Your task to perform on an android device: Go to location settings Image 0: 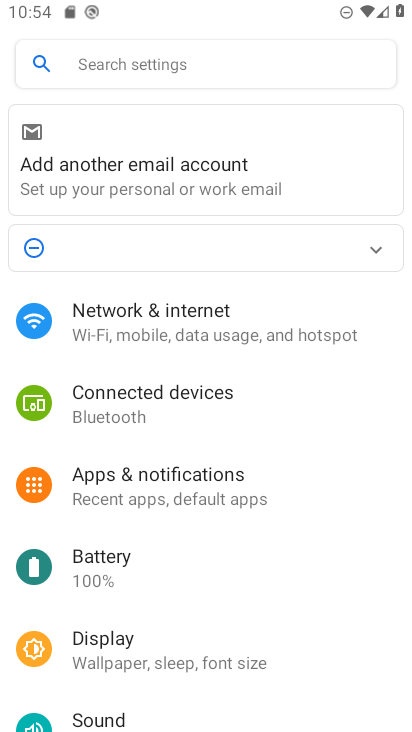
Step 0: press home button
Your task to perform on an android device: Go to location settings Image 1: 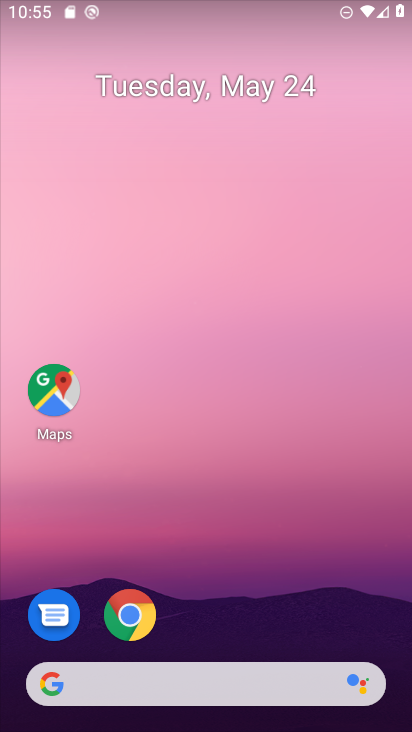
Step 1: drag from (290, 729) to (331, 180)
Your task to perform on an android device: Go to location settings Image 2: 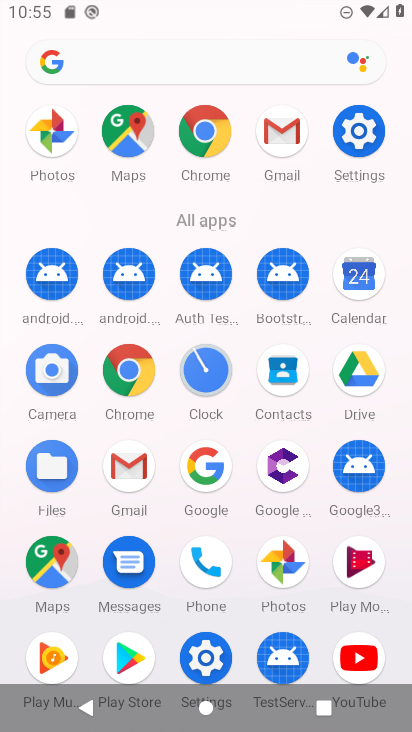
Step 2: click (364, 210)
Your task to perform on an android device: Go to location settings Image 3: 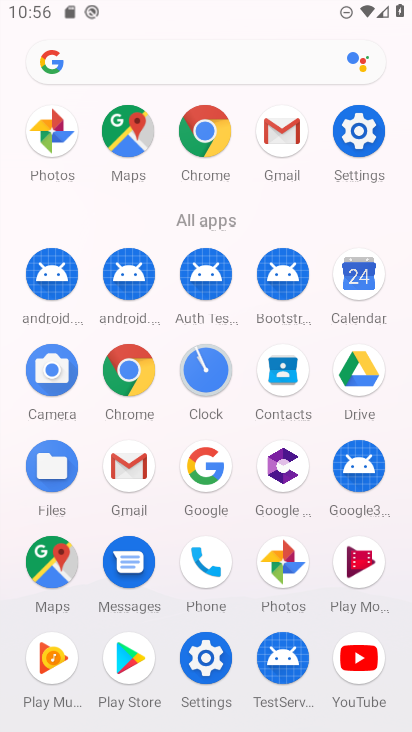
Step 3: click (347, 142)
Your task to perform on an android device: Go to location settings Image 4: 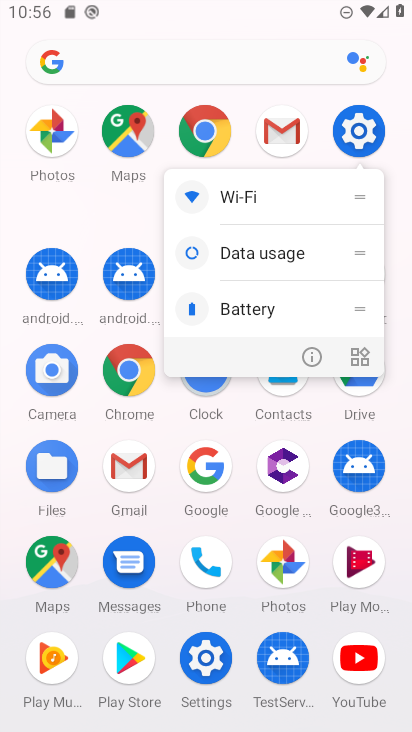
Step 4: click (349, 145)
Your task to perform on an android device: Go to location settings Image 5: 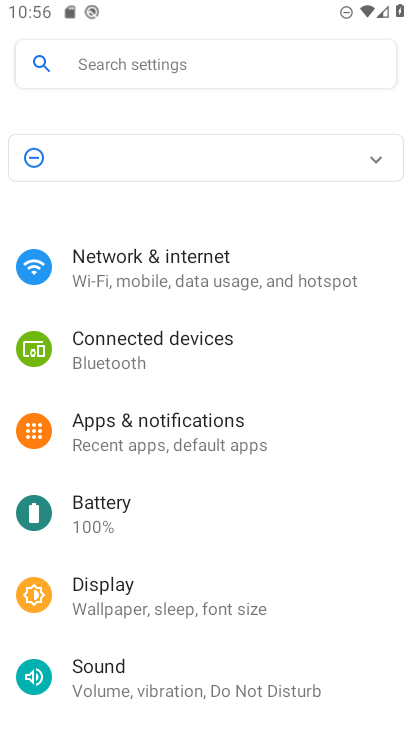
Step 5: click (158, 54)
Your task to perform on an android device: Go to location settings Image 6: 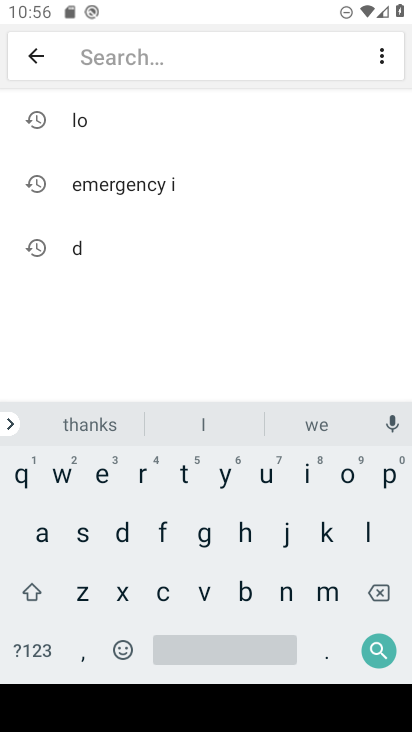
Step 6: click (363, 526)
Your task to perform on an android device: Go to location settings Image 7: 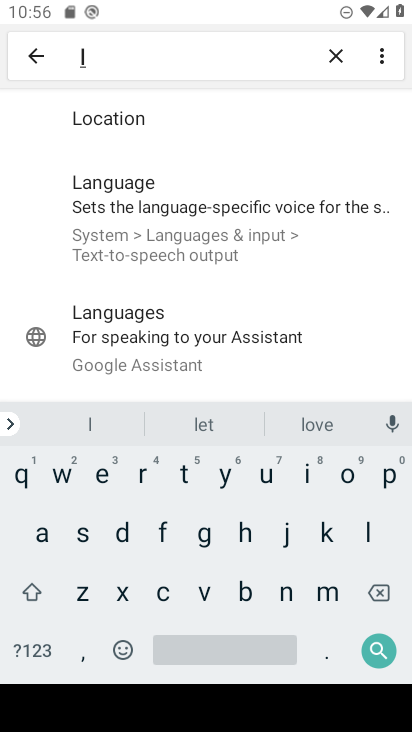
Step 7: click (343, 477)
Your task to perform on an android device: Go to location settings Image 8: 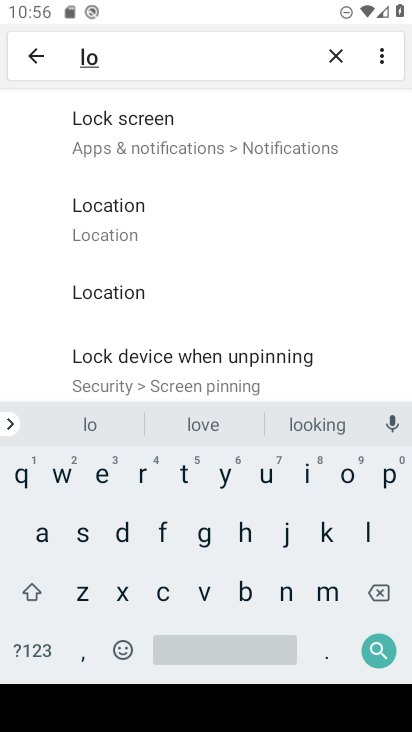
Step 8: click (133, 239)
Your task to perform on an android device: Go to location settings Image 9: 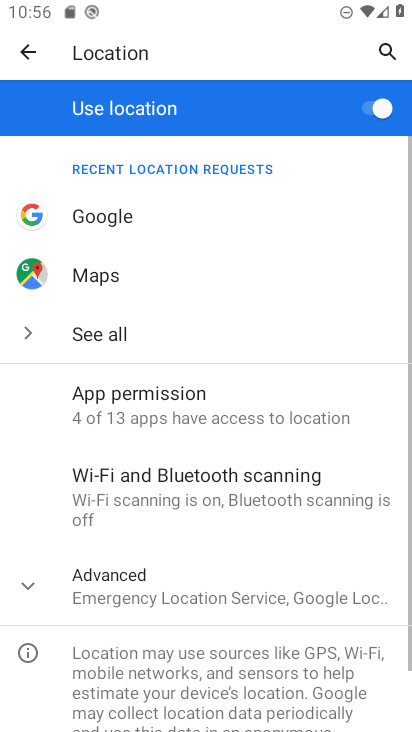
Step 9: task complete